Your task to perform on an android device: turn on translation in the chrome app Image 0: 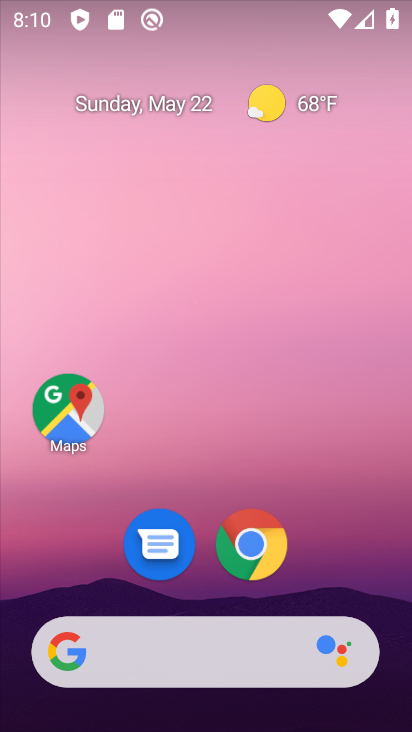
Step 0: click (245, 518)
Your task to perform on an android device: turn on translation in the chrome app Image 1: 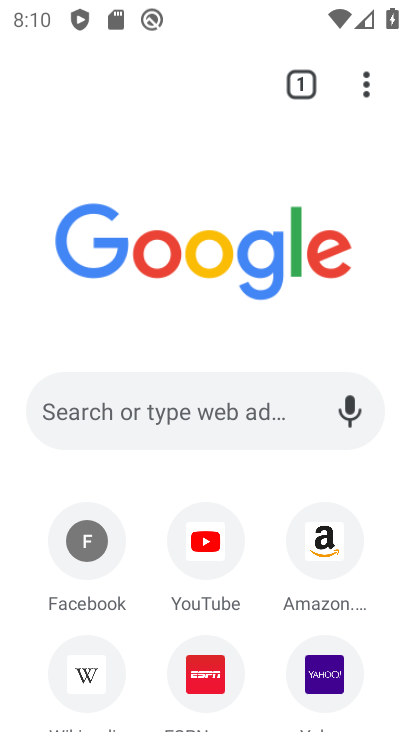
Step 1: click (364, 76)
Your task to perform on an android device: turn on translation in the chrome app Image 2: 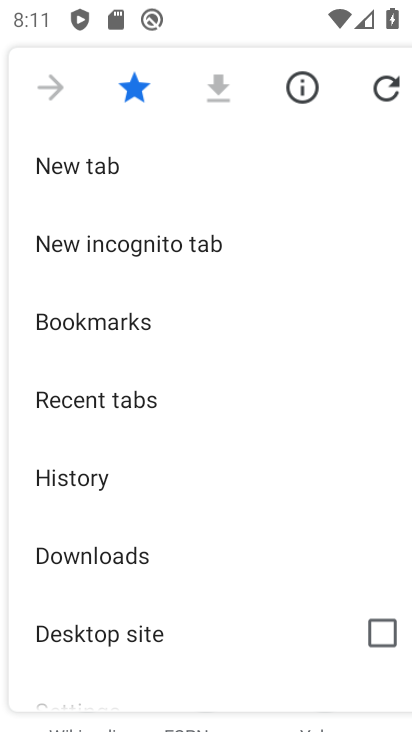
Step 2: drag from (241, 626) to (226, 304)
Your task to perform on an android device: turn on translation in the chrome app Image 3: 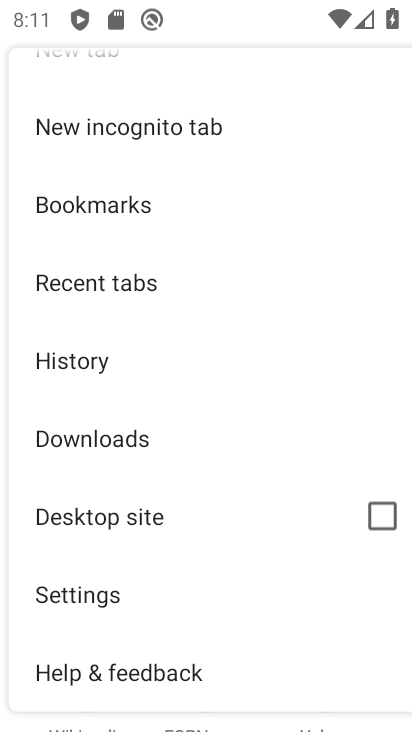
Step 3: click (70, 590)
Your task to perform on an android device: turn on translation in the chrome app Image 4: 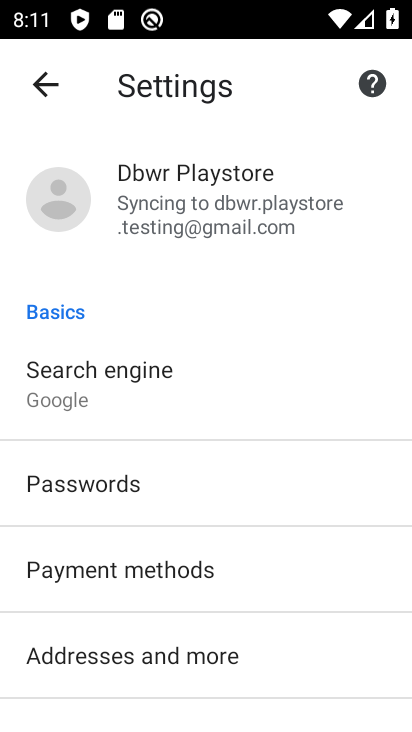
Step 4: drag from (307, 681) to (273, 371)
Your task to perform on an android device: turn on translation in the chrome app Image 5: 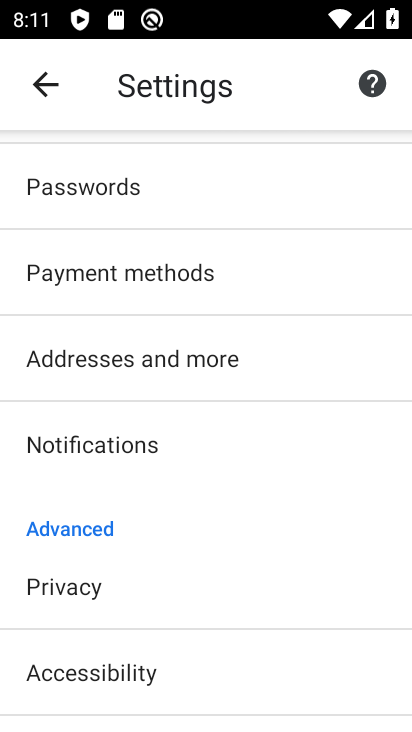
Step 5: drag from (268, 690) to (250, 340)
Your task to perform on an android device: turn on translation in the chrome app Image 6: 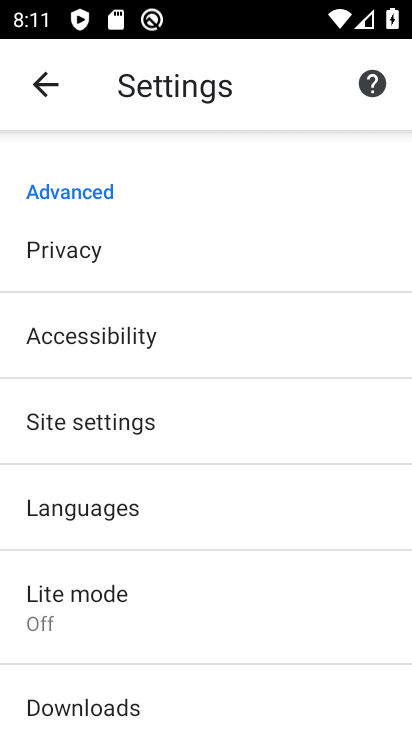
Step 6: click (111, 519)
Your task to perform on an android device: turn on translation in the chrome app Image 7: 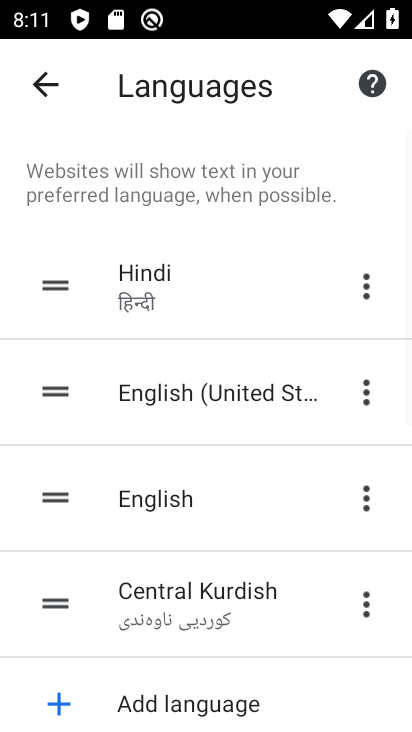
Step 7: drag from (303, 653) to (316, 367)
Your task to perform on an android device: turn on translation in the chrome app Image 8: 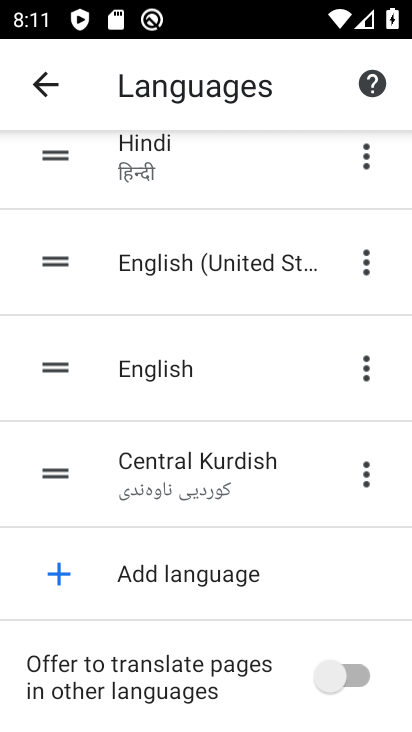
Step 8: click (349, 683)
Your task to perform on an android device: turn on translation in the chrome app Image 9: 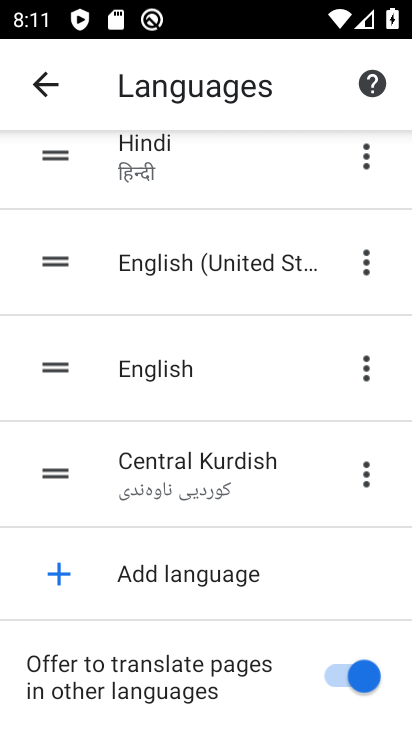
Step 9: task complete